Your task to perform on an android device: change keyboard looks Image 0: 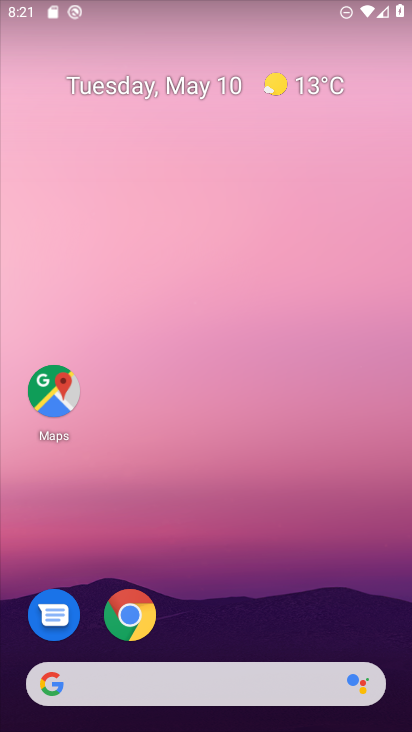
Step 0: drag from (279, 557) to (231, 68)
Your task to perform on an android device: change keyboard looks Image 1: 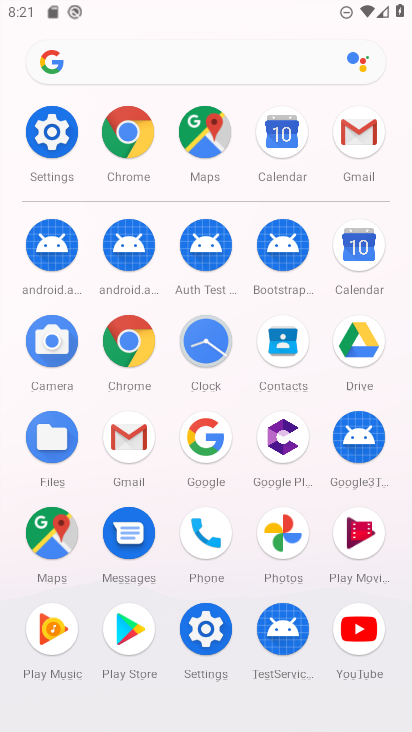
Step 1: click (43, 125)
Your task to perform on an android device: change keyboard looks Image 2: 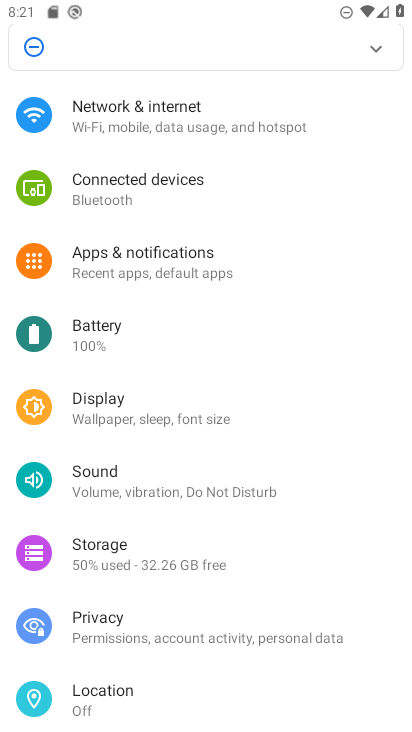
Step 2: drag from (164, 687) to (173, 134)
Your task to perform on an android device: change keyboard looks Image 3: 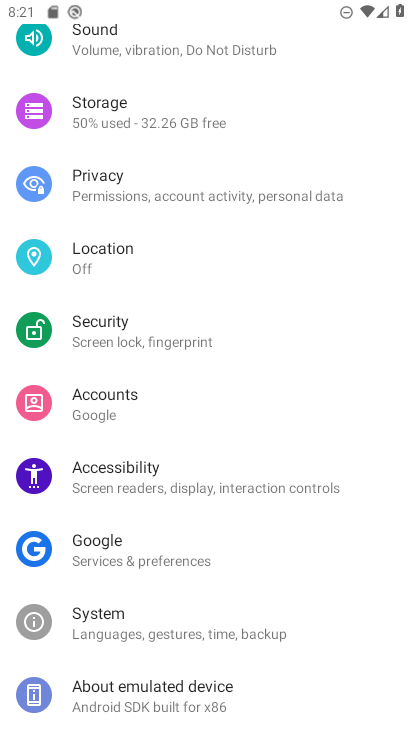
Step 3: click (105, 618)
Your task to perform on an android device: change keyboard looks Image 4: 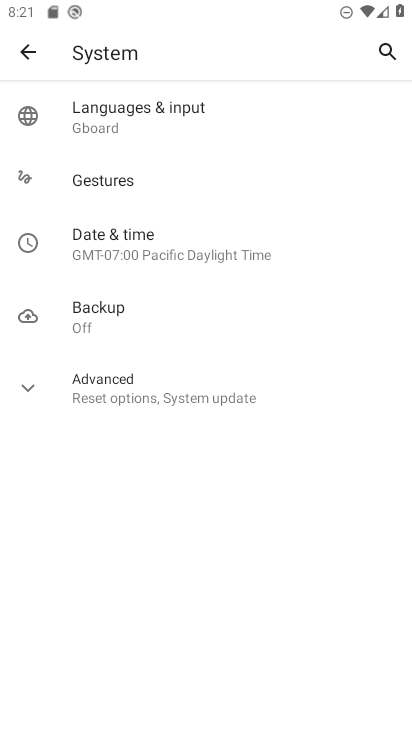
Step 4: click (109, 104)
Your task to perform on an android device: change keyboard looks Image 5: 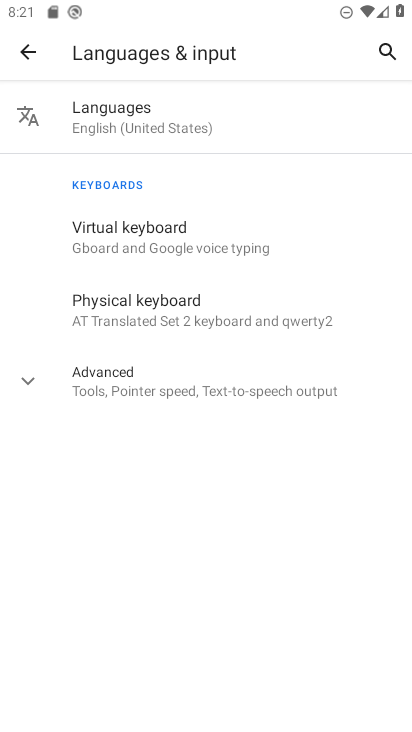
Step 5: click (120, 120)
Your task to perform on an android device: change keyboard looks Image 6: 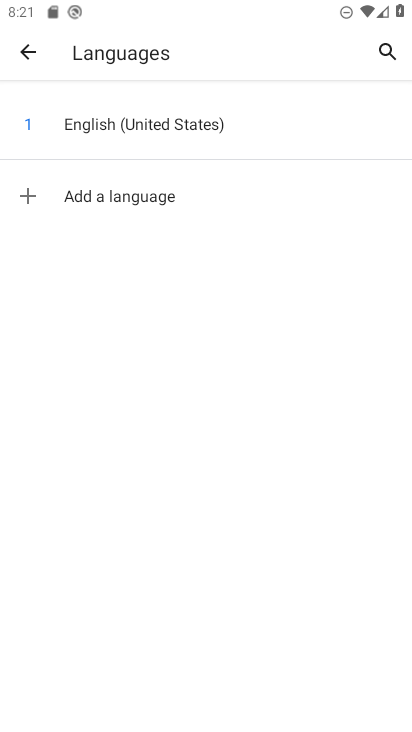
Step 6: click (14, 49)
Your task to perform on an android device: change keyboard looks Image 7: 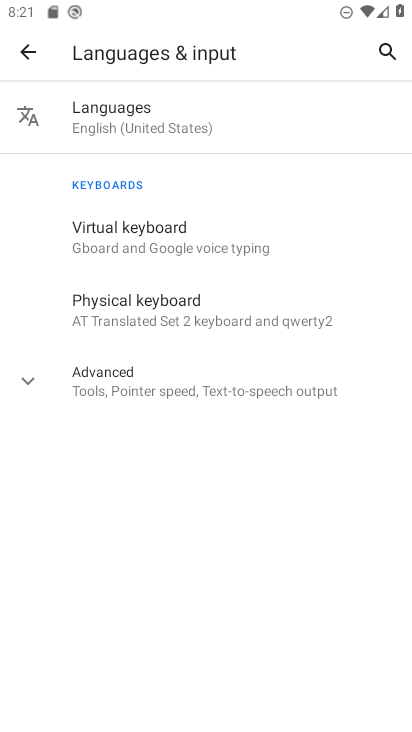
Step 7: click (149, 234)
Your task to perform on an android device: change keyboard looks Image 8: 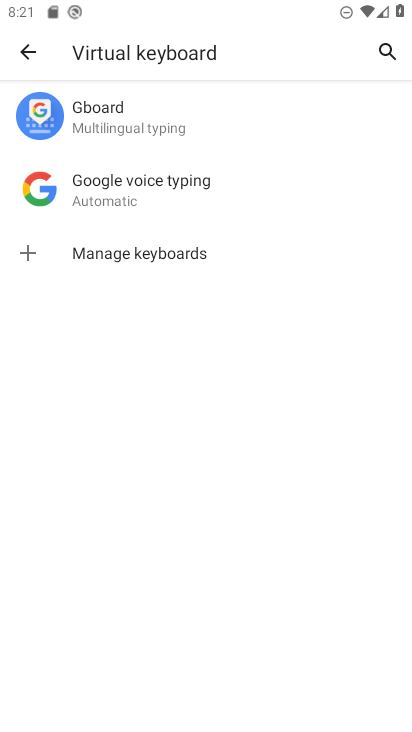
Step 8: click (90, 108)
Your task to perform on an android device: change keyboard looks Image 9: 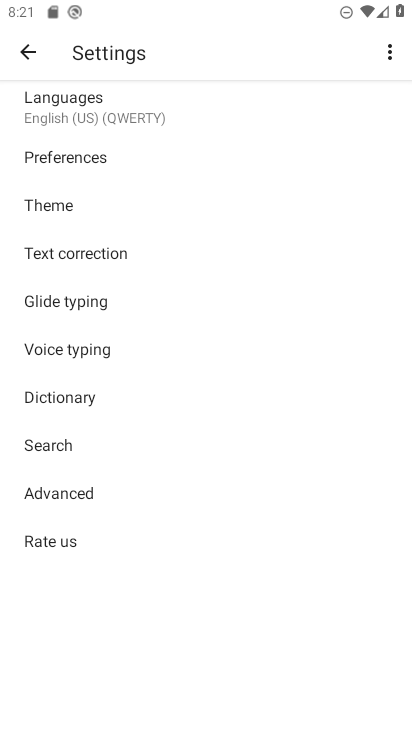
Step 9: click (64, 204)
Your task to perform on an android device: change keyboard looks Image 10: 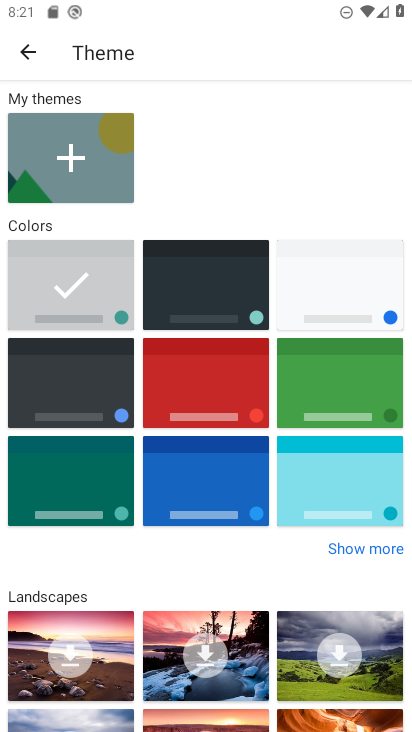
Step 10: click (224, 387)
Your task to perform on an android device: change keyboard looks Image 11: 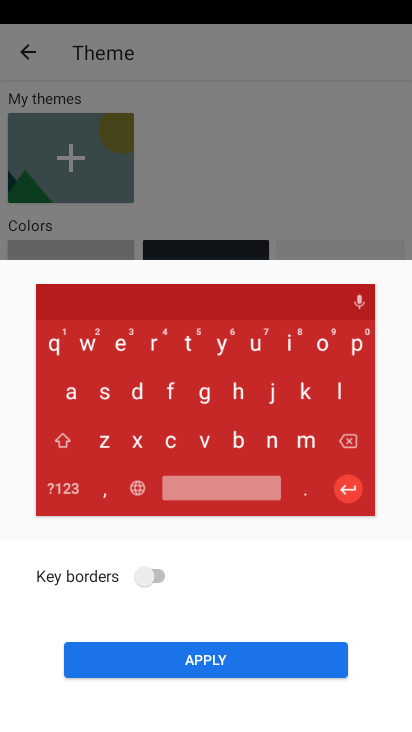
Step 11: click (225, 659)
Your task to perform on an android device: change keyboard looks Image 12: 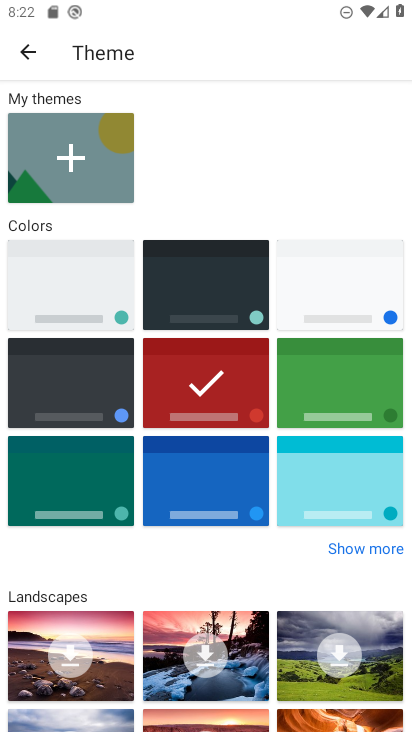
Step 12: task complete